Your task to perform on an android device: What's the weather? Image 0: 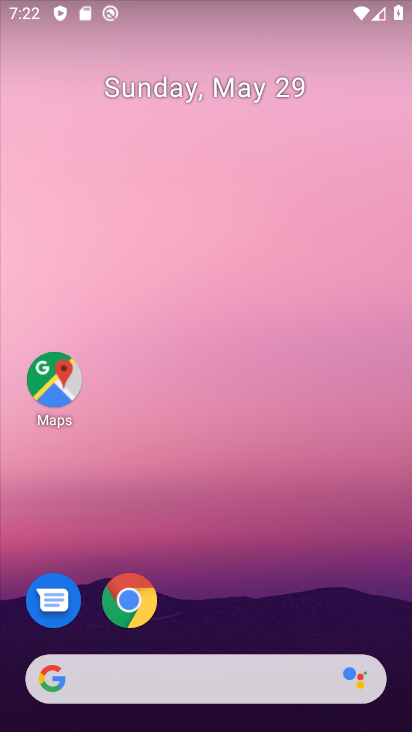
Step 0: click (191, 678)
Your task to perform on an android device: What's the weather? Image 1: 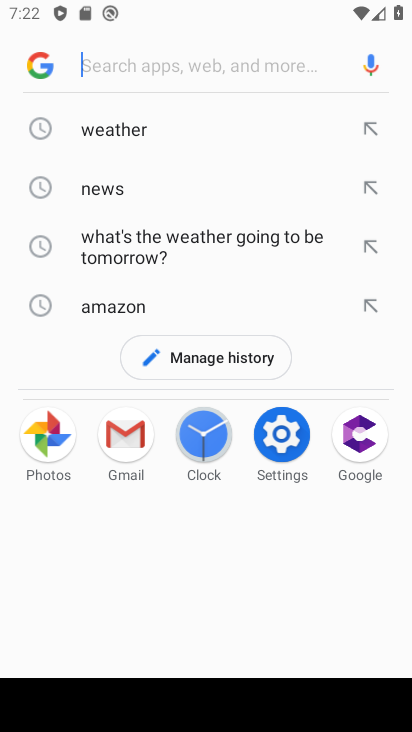
Step 1: click (142, 135)
Your task to perform on an android device: What's the weather? Image 2: 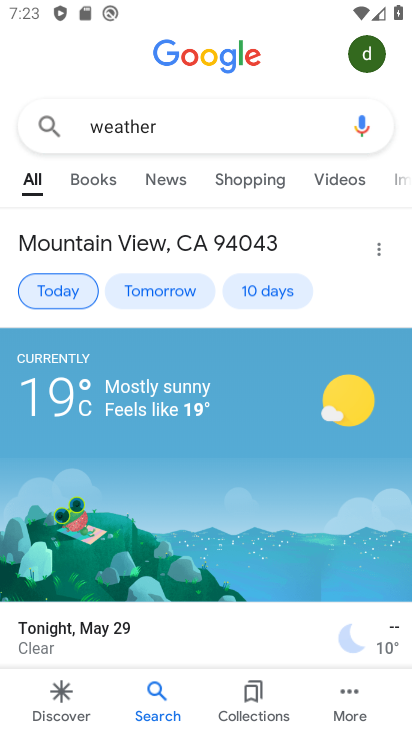
Step 2: task complete